Your task to perform on an android device: open app "Google Find My Device" (install if not already installed) Image 0: 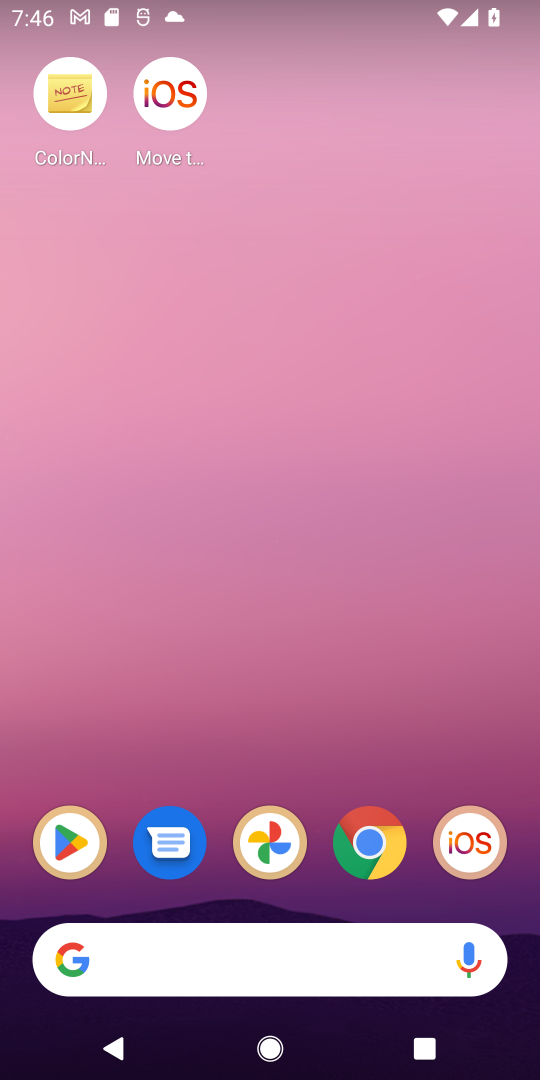
Step 0: click (45, 845)
Your task to perform on an android device: open app "Google Find My Device" (install if not already installed) Image 1: 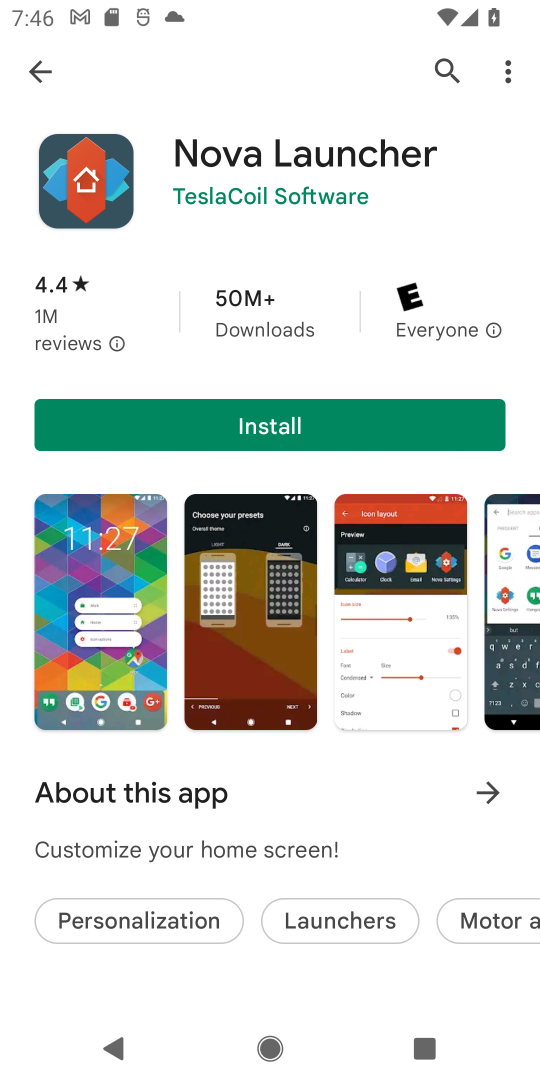
Step 1: click (57, 822)
Your task to perform on an android device: open app "Google Find My Device" (install if not already installed) Image 2: 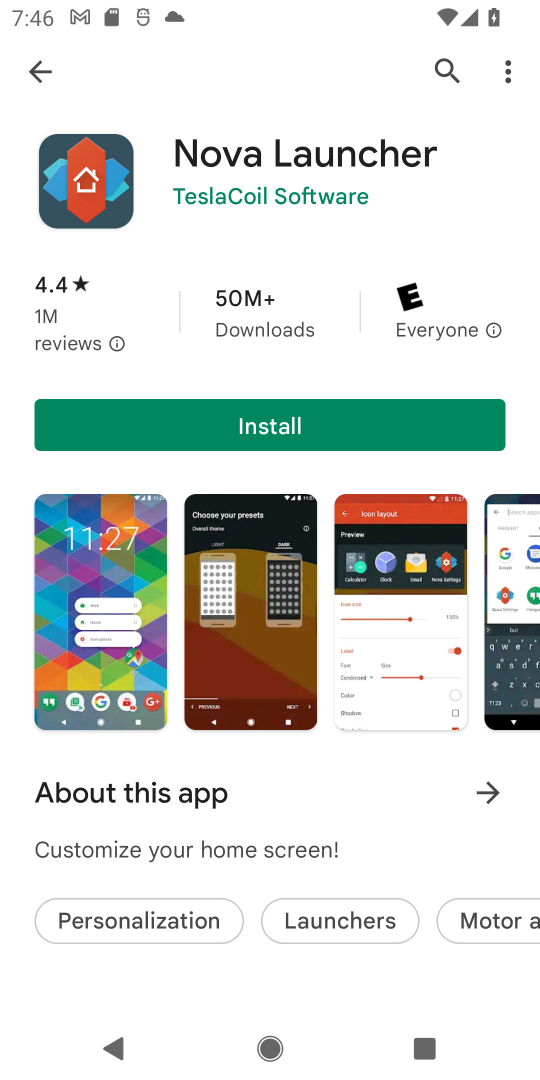
Step 2: click (42, 74)
Your task to perform on an android device: open app "Google Find My Device" (install if not already installed) Image 3: 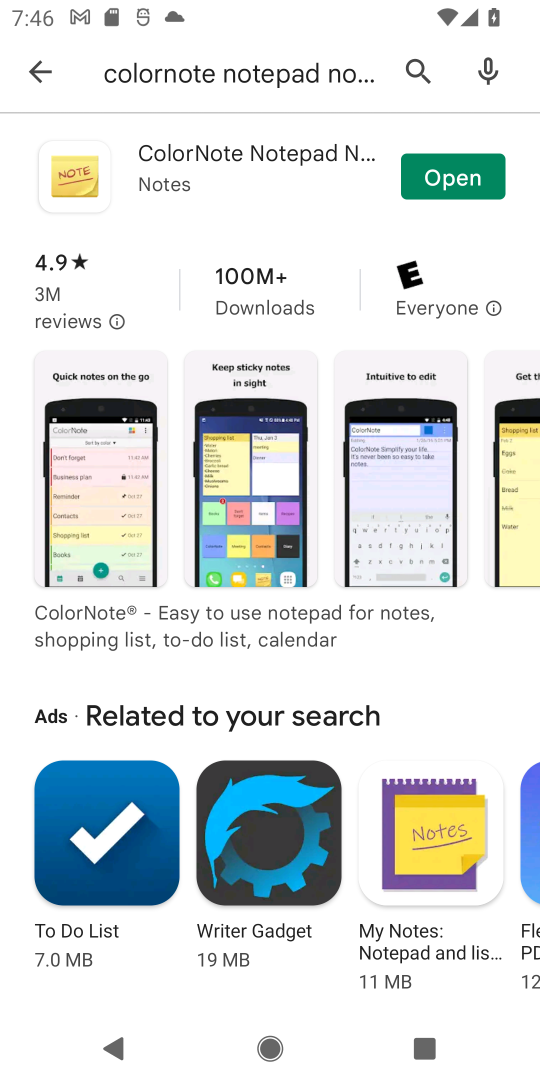
Step 3: click (201, 67)
Your task to perform on an android device: open app "Google Find My Device" (install if not already installed) Image 4: 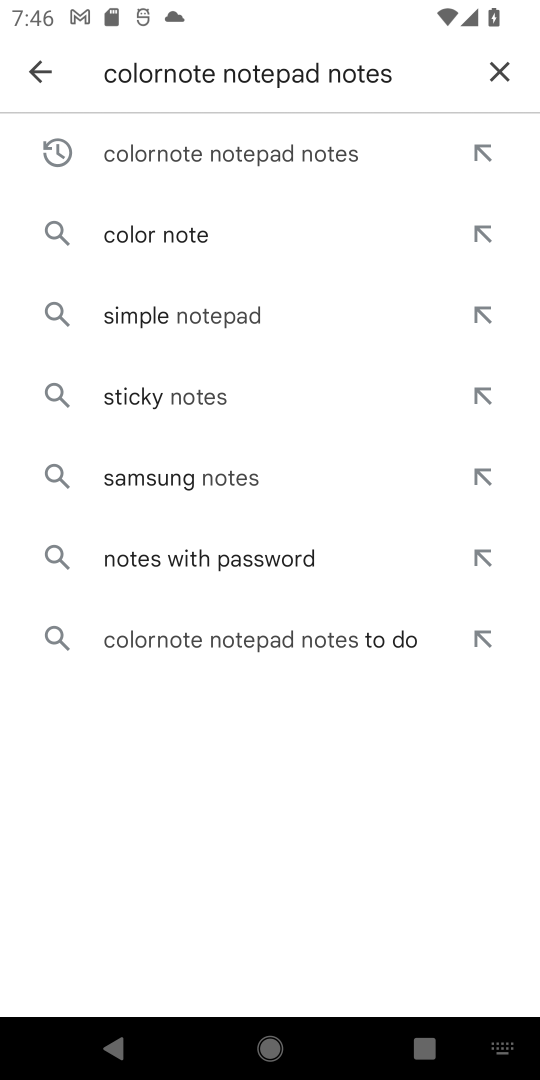
Step 4: click (492, 64)
Your task to perform on an android device: open app "Google Find My Device" (install if not already installed) Image 5: 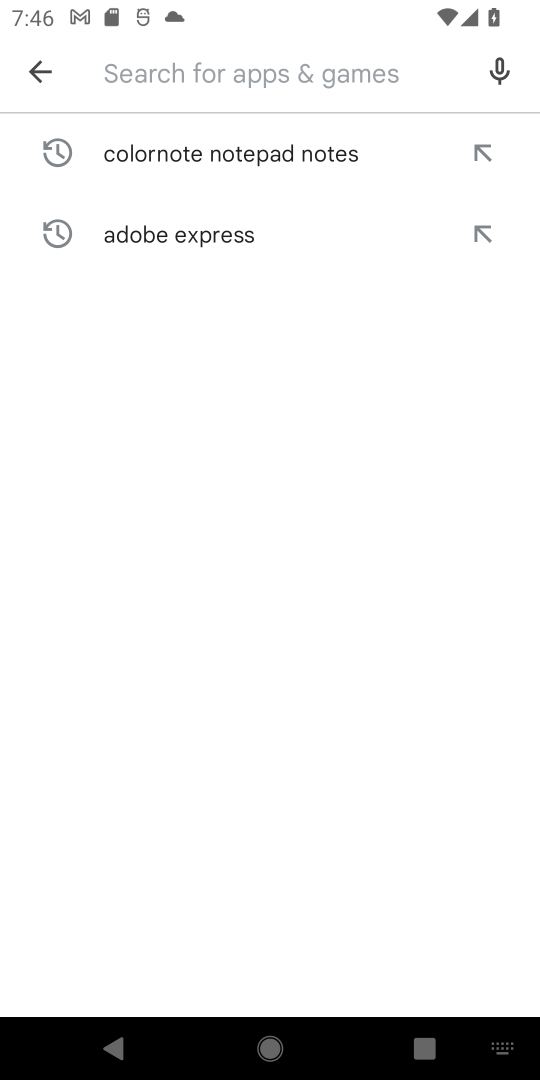
Step 5: type "google find my Device"
Your task to perform on an android device: open app "Google Find My Device" (install if not already installed) Image 6: 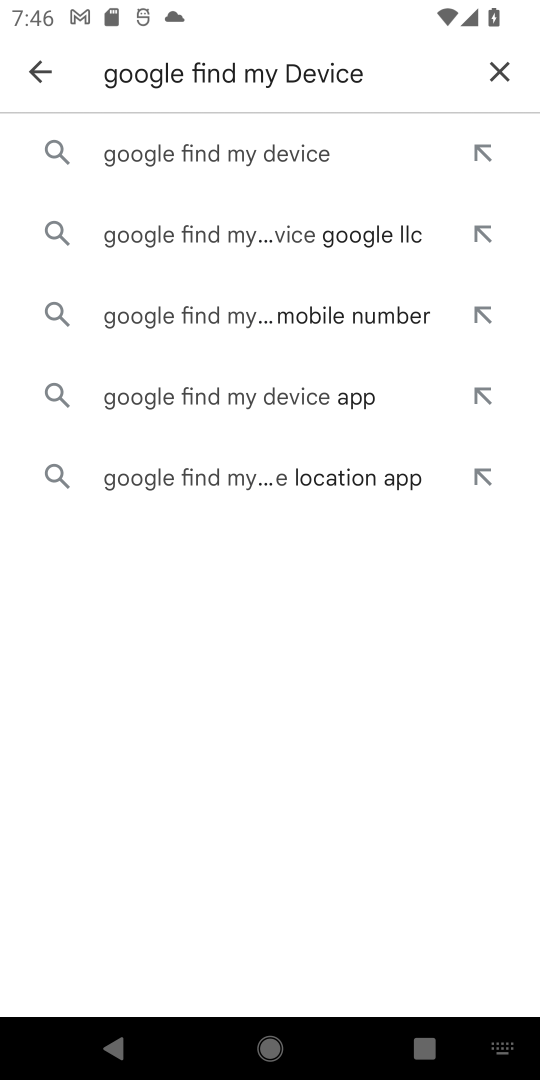
Step 6: click (163, 200)
Your task to perform on an android device: open app "Google Find My Device" (install if not already installed) Image 7: 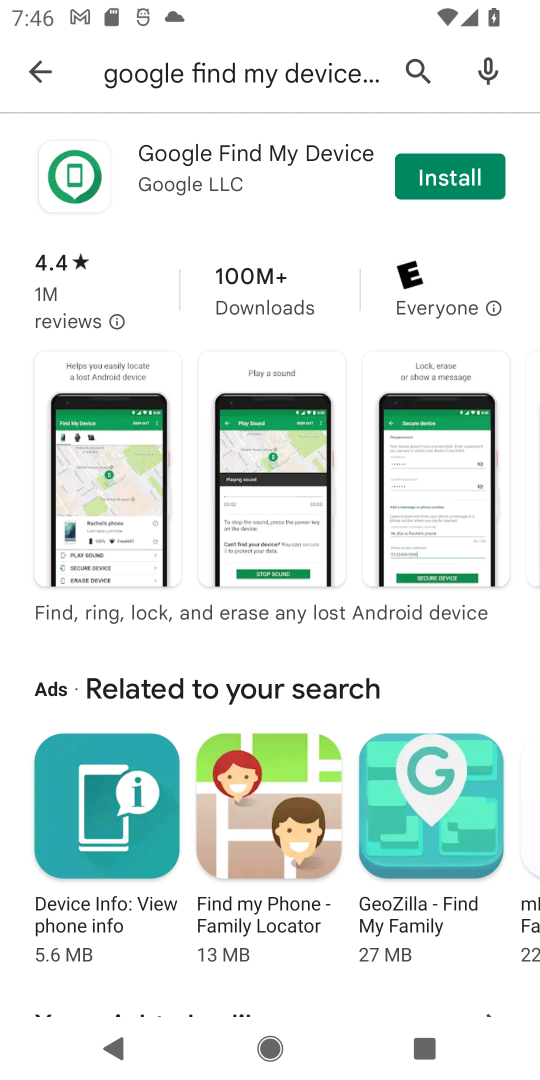
Step 7: click (457, 156)
Your task to perform on an android device: open app "Google Find My Device" (install if not already installed) Image 8: 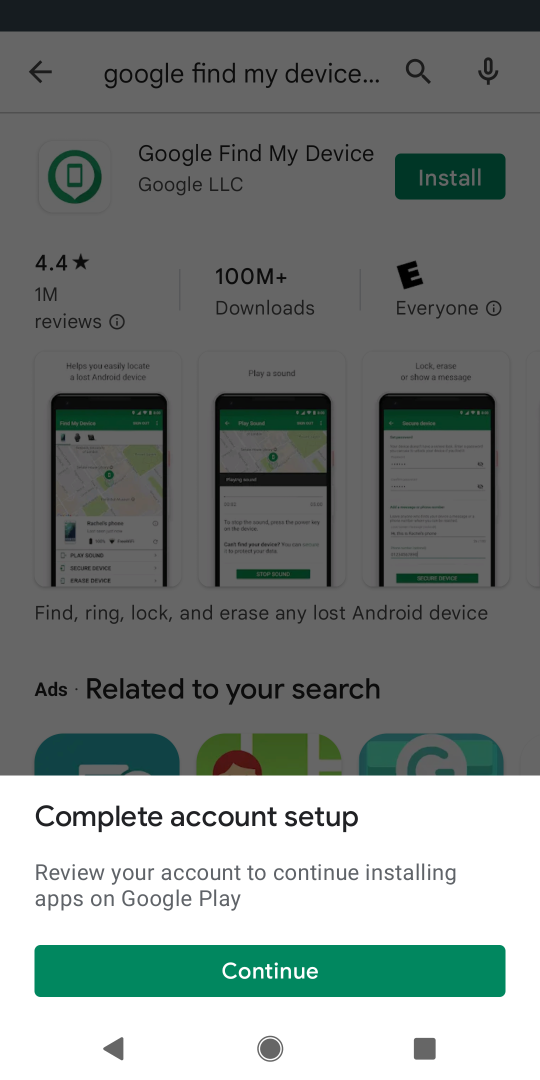
Step 8: click (200, 976)
Your task to perform on an android device: open app "Google Find My Device" (install if not already installed) Image 9: 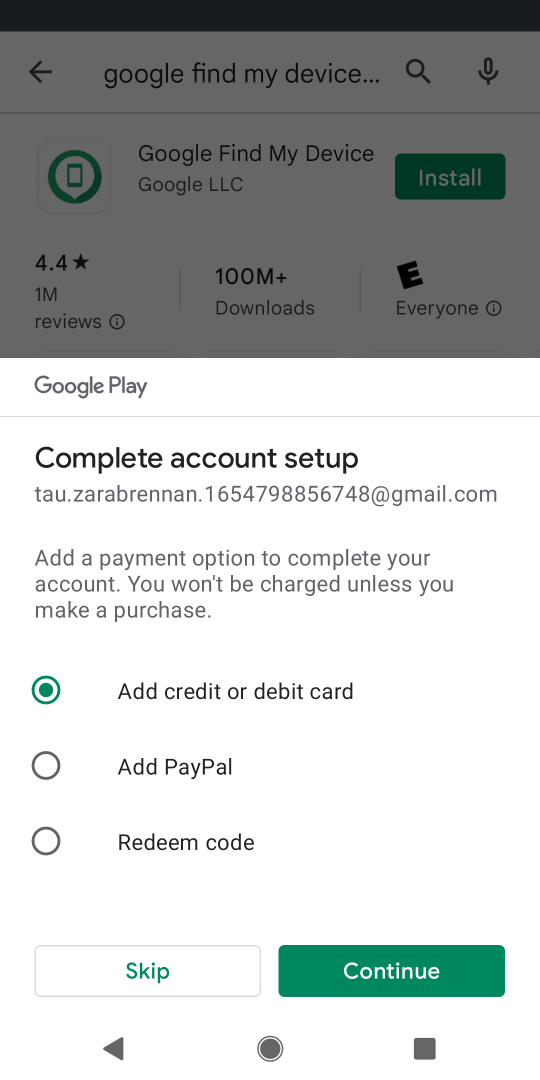
Step 9: click (136, 956)
Your task to perform on an android device: open app "Google Find My Device" (install if not already installed) Image 10: 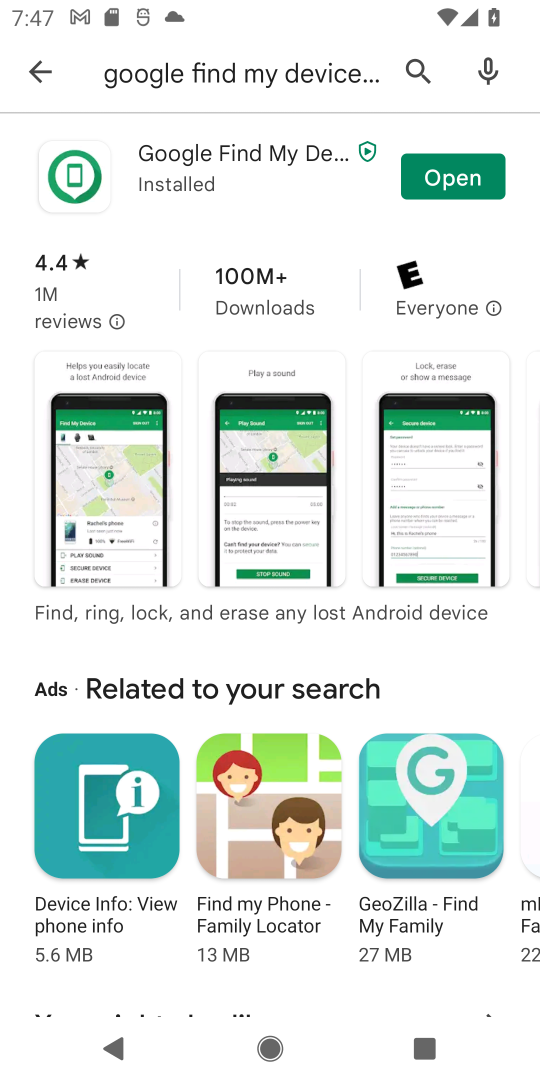
Step 10: click (421, 198)
Your task to perform on an android device: open app "Google Find My Device" (install if not already installed) Image 11: 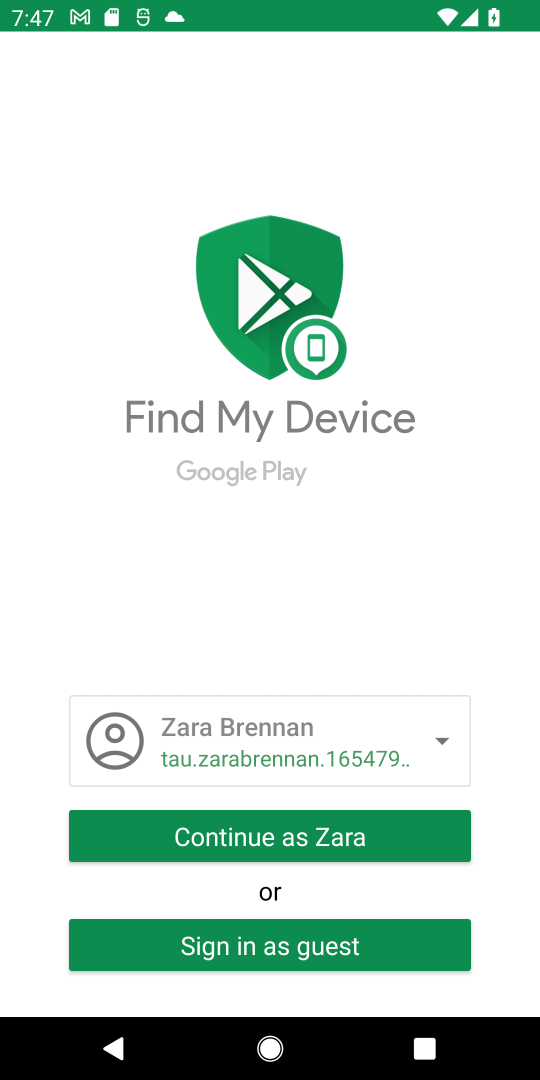
Step 11: click (229, 947)
Your task to perform on an android device: open app "Google Find My Device" (install if not already installed) Image 12: 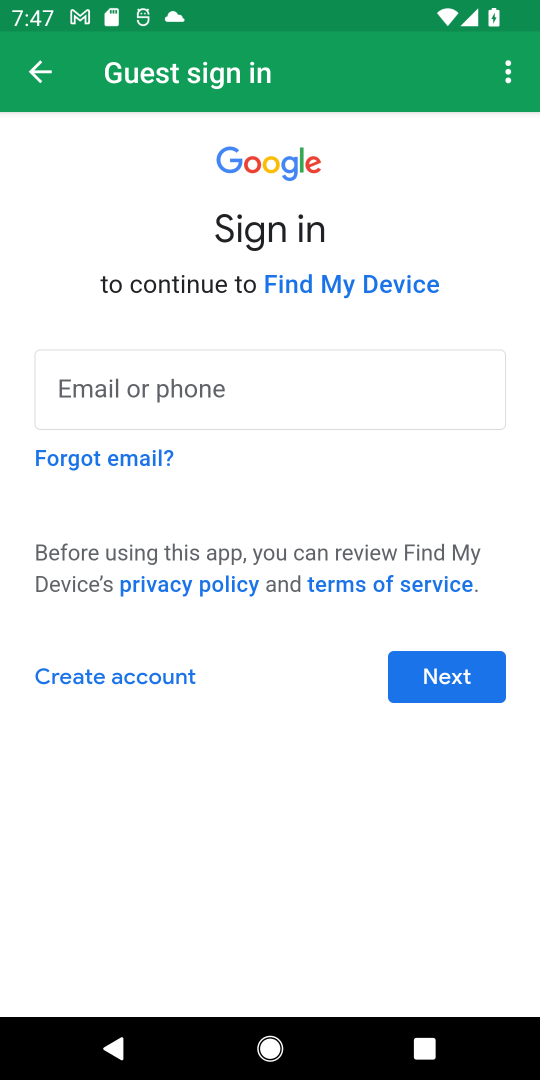
Step 12: task complete